Your task to perform on an android device: snooze an email in the gmail app Image 0: 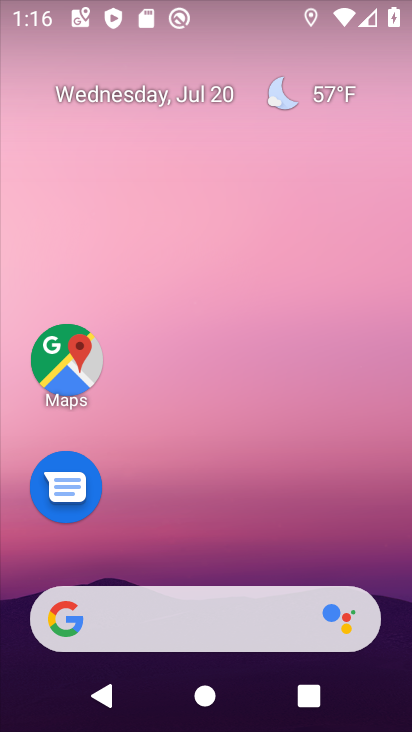
Step 0: drag from (208, 550) to (281, 0)
Your task to perform on an android device: snooze an email in the gmail app Image 1: 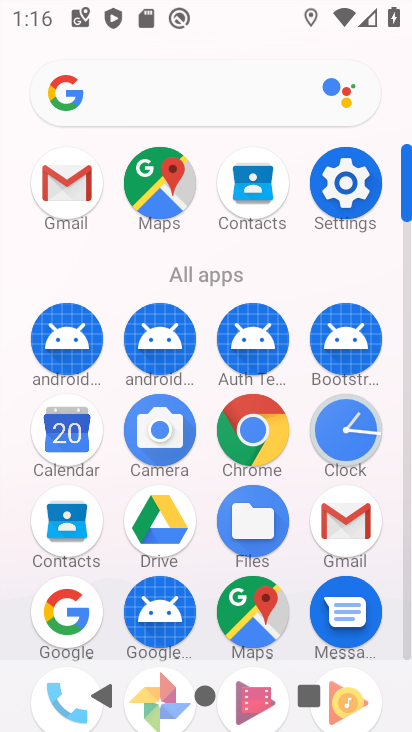
Step 1: click (68, 174)
Your task to perform on an android device: snooze an email in the gmail app Image 2: 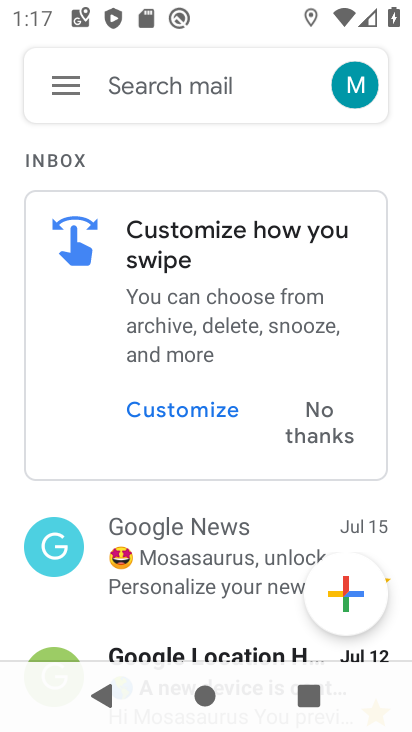
Step 2: drag from (188, 508) to (240, 261)
Your task to perform on an android device: snooze an email in the gmail app Image 3: 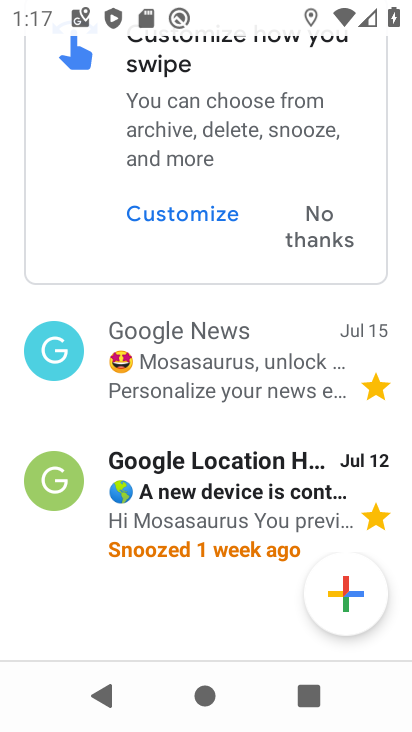
Step 3: click (223, 350)
Your task to perform on an android device: snooze an email in the gmail app Image 4: 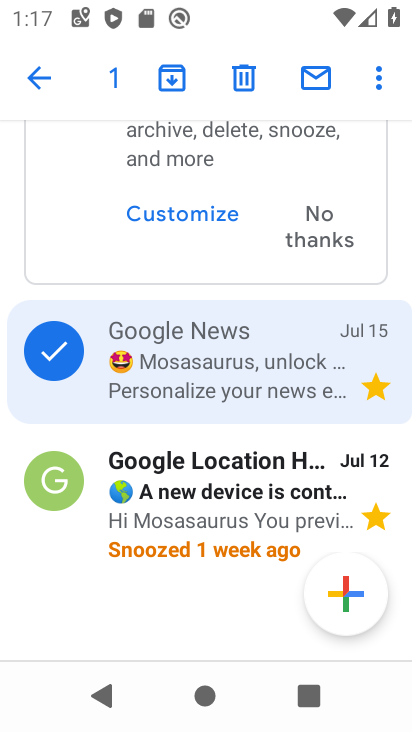
Step 4: click (382, 68)
Your task to perform on an android device: snooze an email in the gmail app Image 5: 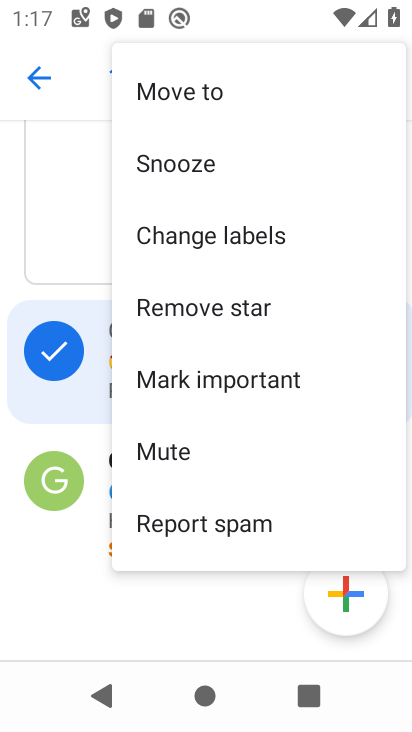
Step 5: click (221, 171)
Your task to perform on an android device: snooze an email in the gmail app Image 6: 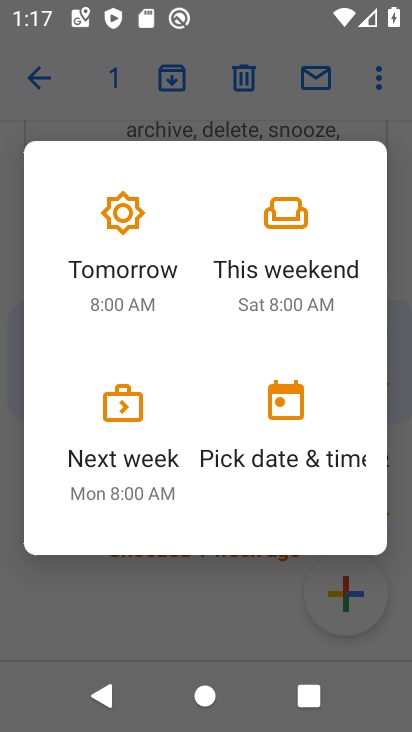
Step 6: click (107, 254)
Your task to perform on an android device: snooze an email in the gmail app Image 7: 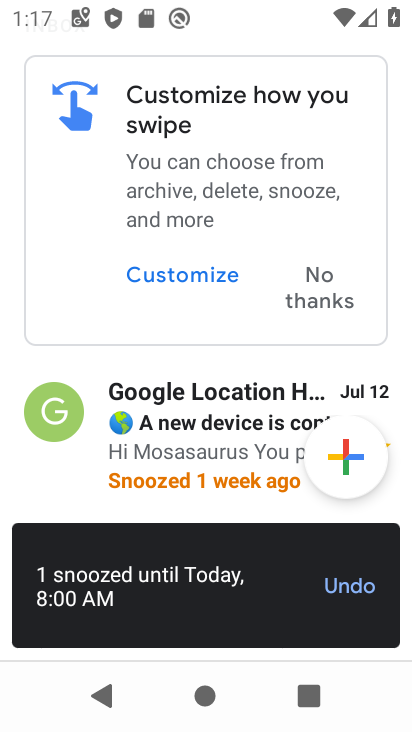
Step 7: task complete